Your task to perform on an android device: Go to accessibility settings Image 0: 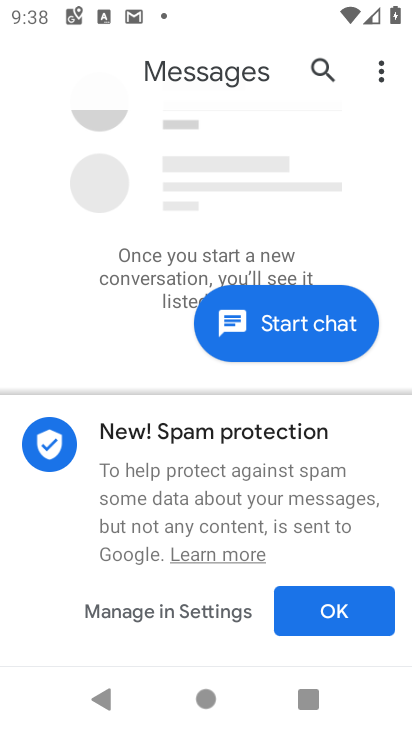
Step 0: press home button
Your task to perform on an android device: Go to accessibility settings Image 1: 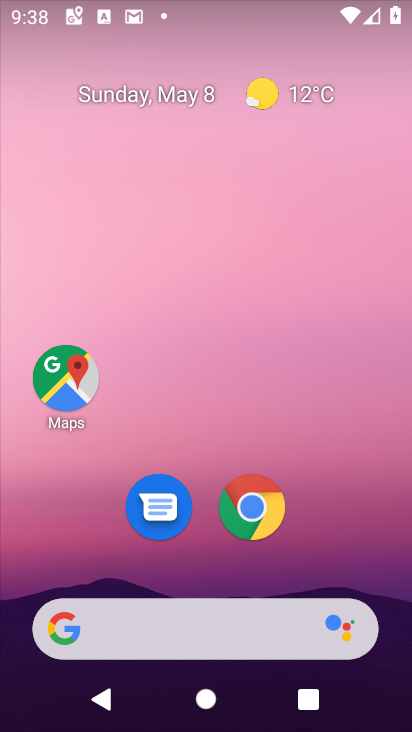
Step 1: drag from (251, 681) to (280, 17)
Your task to perform on an android device: Go to accessibility settings Image 2: 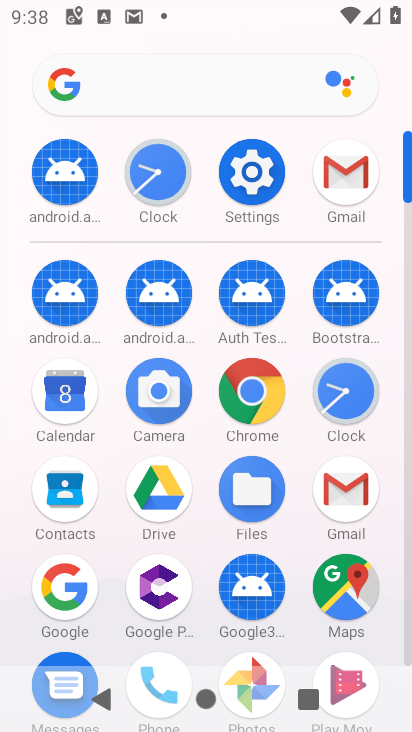
Step 2: click (255, 189)
Your task to perform on an android device: Go to accessibility settings Image 3: 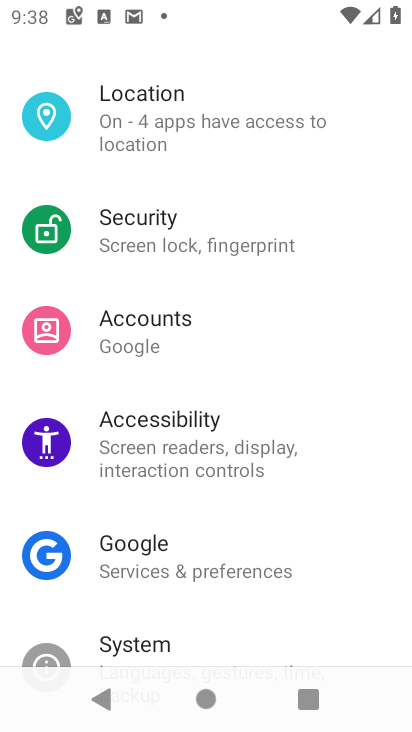
Step 3: click (220, 440)
Your task to perform on an android device: Go to accessibility settings Image 4: 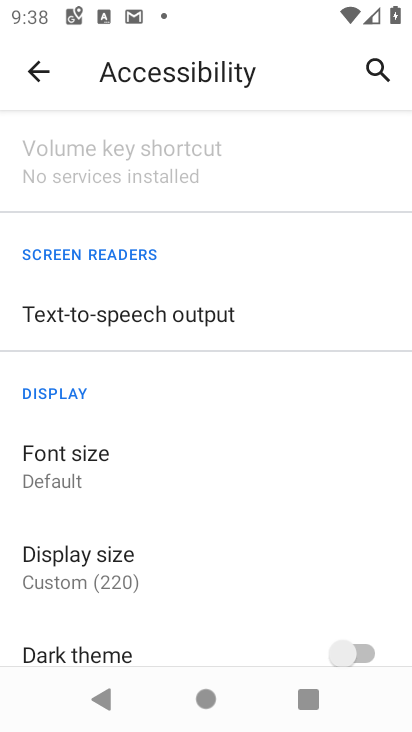
Step 4: task complete